Your task to perform on an android device: open device folders in google photos Image 0: 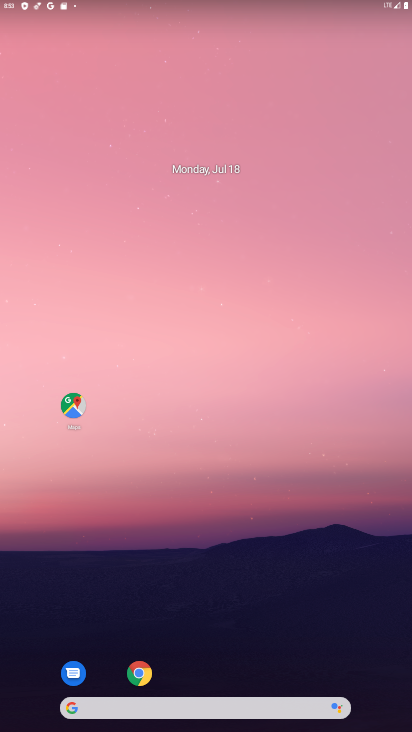
Step 0: drag from (186, 667) to (243, 157)
Your task to perform on an android device: open device folders in google photos Image 1: 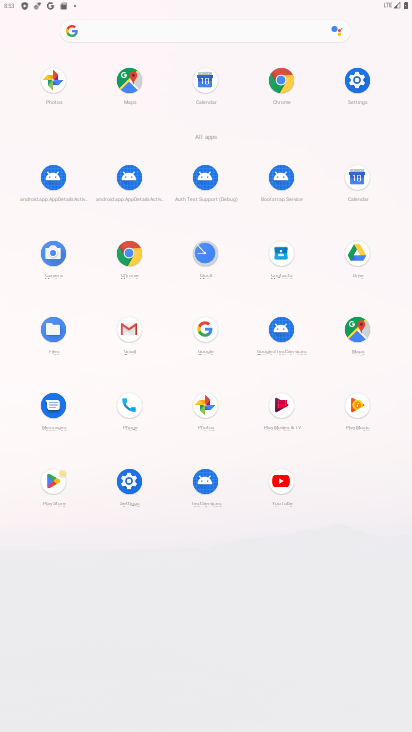
Step 1: click (204, 404)
Your task to perform on an android device: open device folders in google photos Image 2: 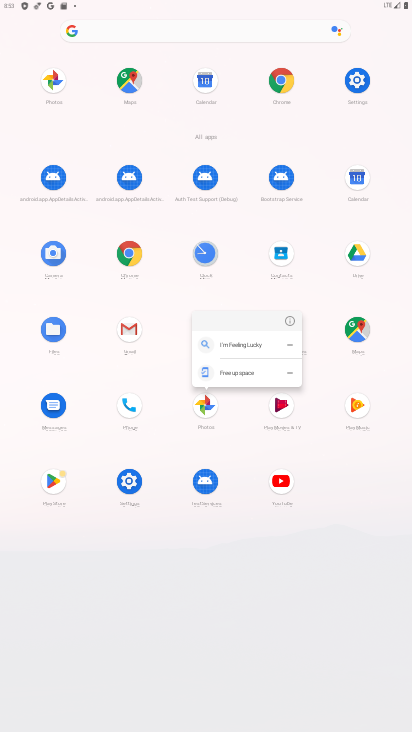
Step 2: click (204, 404)
Your task to perform on an android device: open device folders in google photos Image 3: 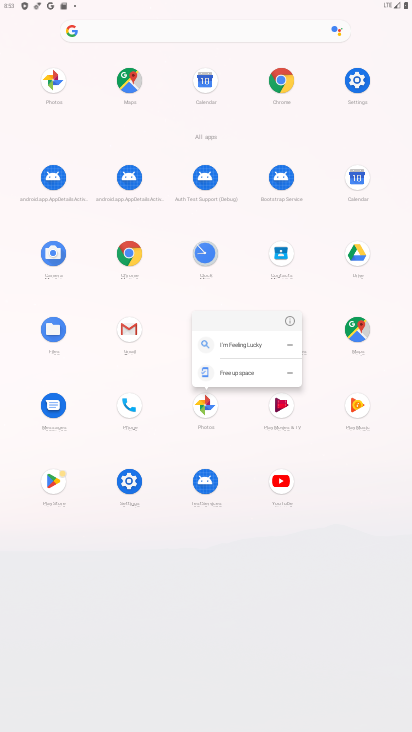
Step 3: click (204, 404)
Your task to perform on an android device: open device folders in google photos Image 4: 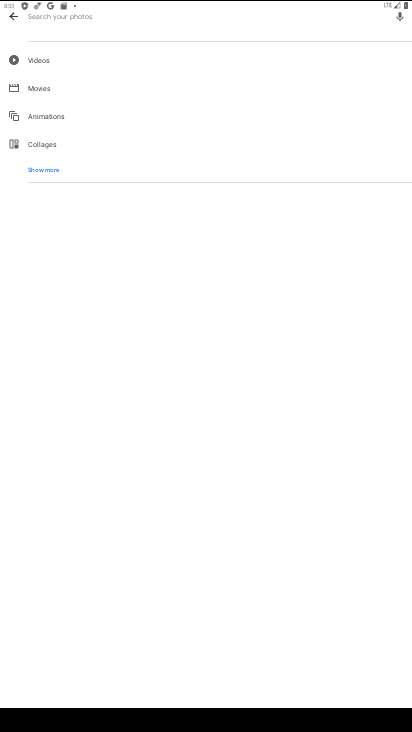
Step 4: press back button
Your task to perform on an android device: open device folders in google photos Image 5: 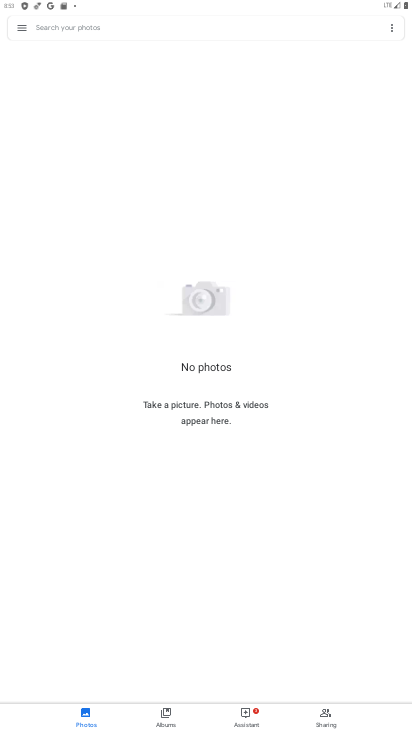
Step 5: click (25, 26)
Your task to perform on an android device: open device folders in google photos Image 6: 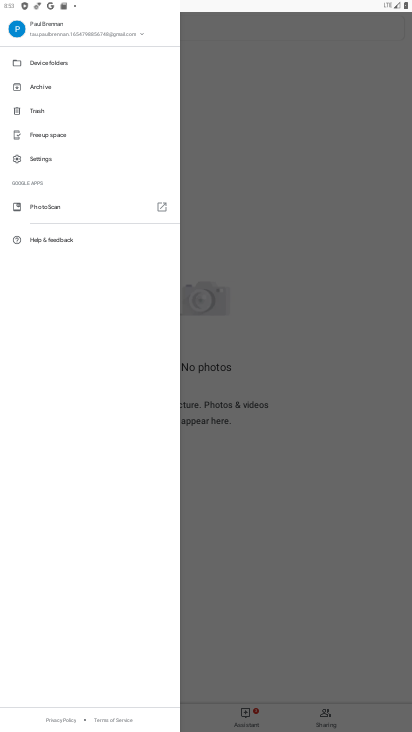
Step 6: click (32, 55)
Your task to perform on an android device: open device folders in google photos Image 7: 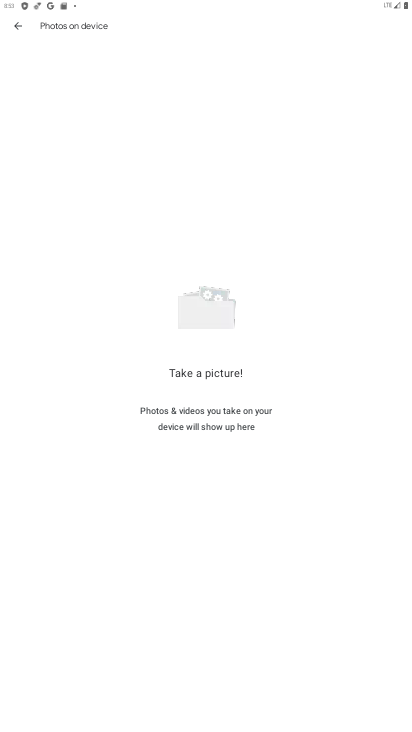
Step 7: task complete